Your task to perform on an android device: Open Yahoo.com Image 0: 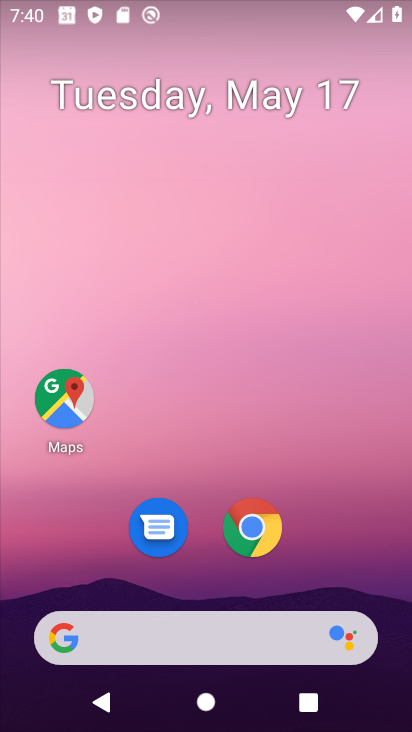
Step 0: press home button
Your task to perform on an android device: Open Yahoo.com Image 1: 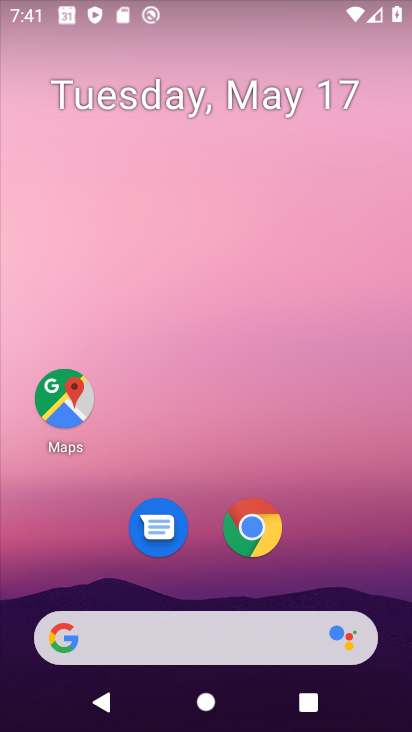
Step 1: drag from (279, 670) to (323, 185)
Your task to perform on an android device: Open Yahoo.com Image 2: 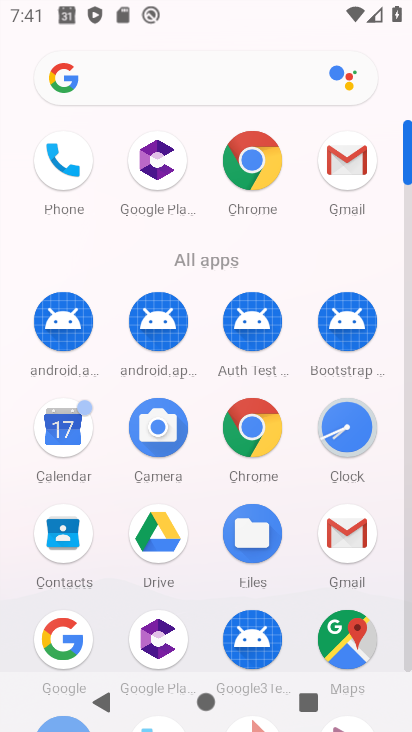
Step 2: click (255, 163)
Your task to perform on an android device: Open Yahoo.com Image 3: 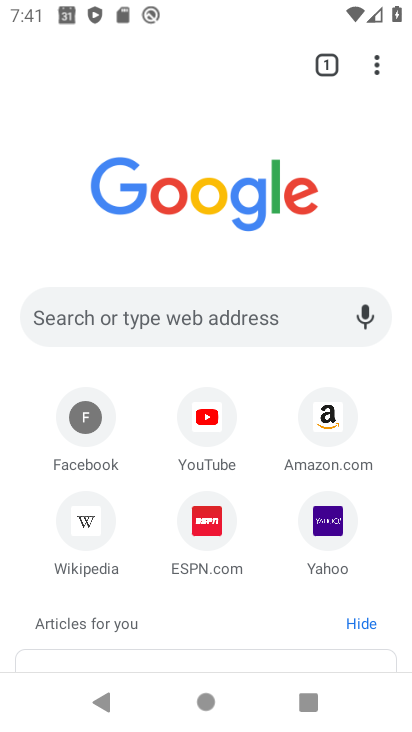
Step 3: click (322, 528)
Your task to perform on an android device: Open Yahoo.com Image 4: 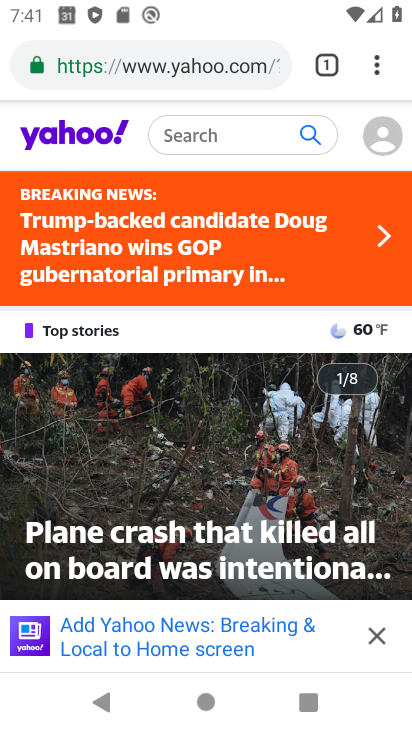
Step 4: task complete